Your task to perform on an android device: open chrome and create a bookmark for the current page Image 0: 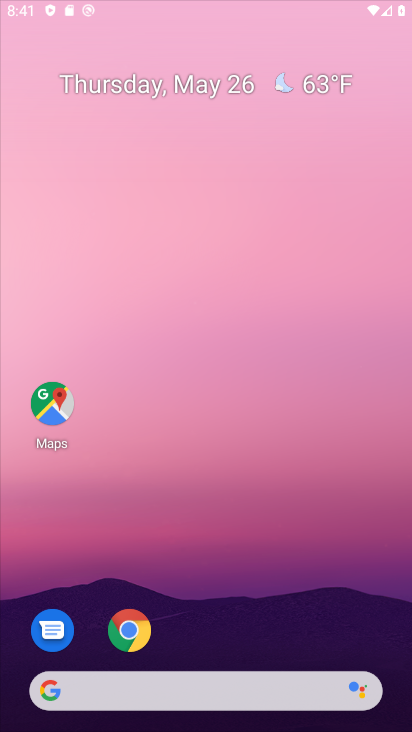
Step 0: click (405, 453)
Your task to perform on an android device: open chrome and create a bookmark for the current page Image 1: 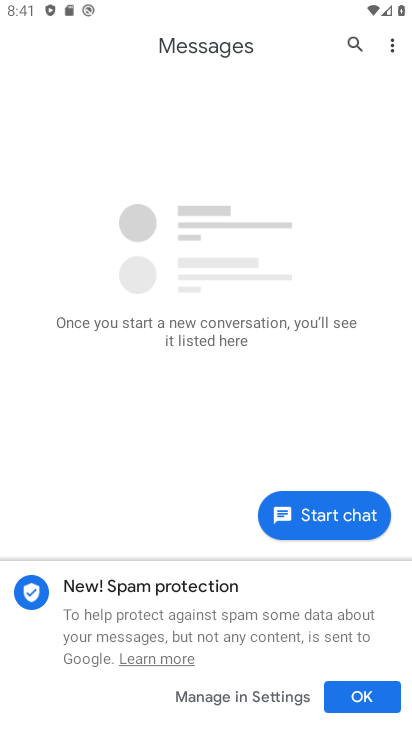
Step 1: click (356, 707)
Your task to perform on an android device: open chrome and create a bookmark for the current page Image 2: 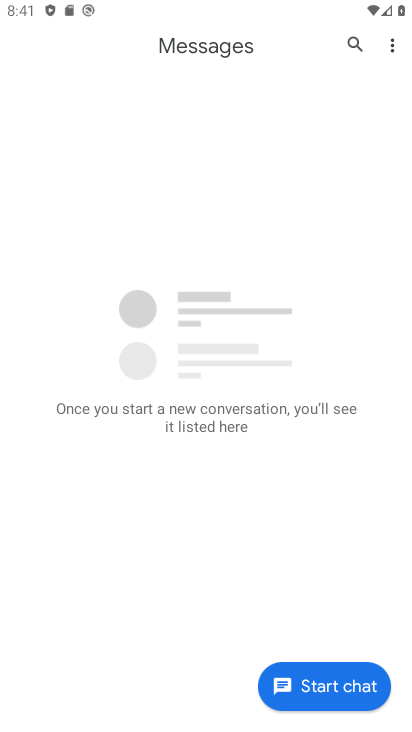
Step 2: press back button
Your task to perform on an android device: open chrome and create a bookmark for the current page Image 3: 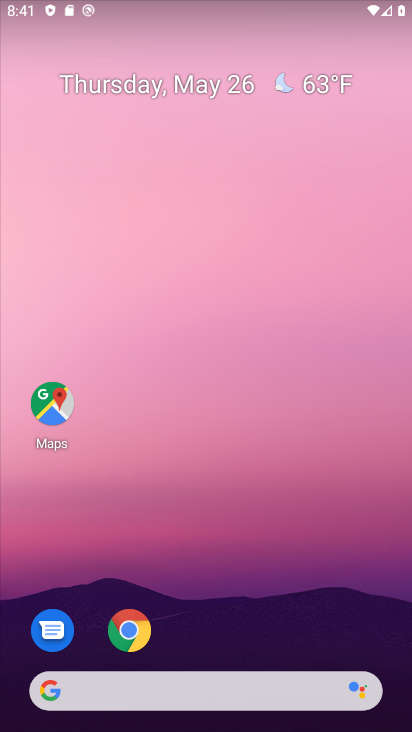
Step 3: drag from (274, 715) to (305, 23)
Your task to perform on an android device: open chrome and create a bookmark for the current page Image 4: 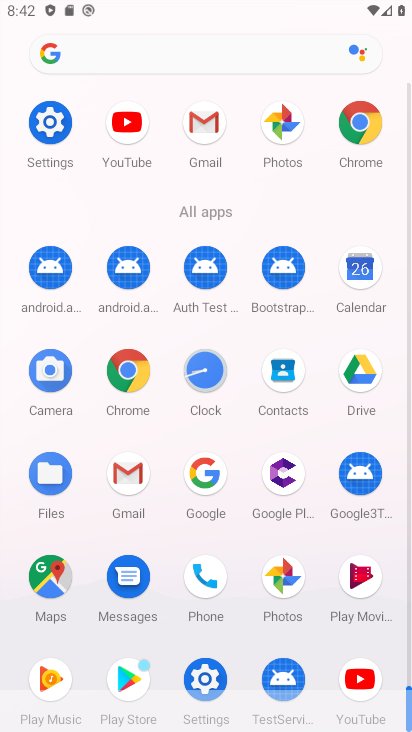
Step 4: click (351, 136)
Your task to perform on an android device: open chrome and create a bookmark for the current page Image 5: 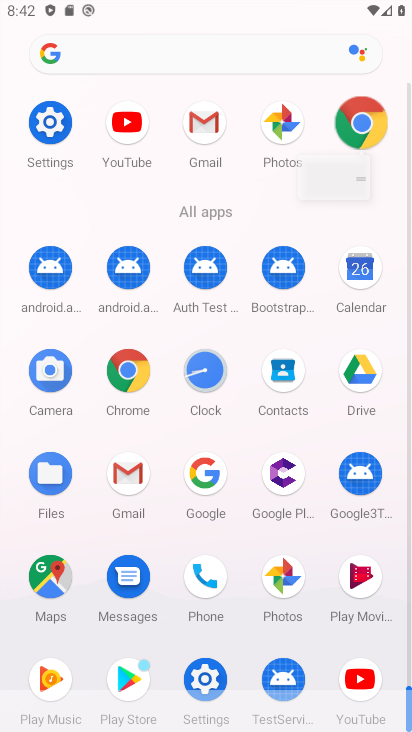
Step 5: click (363, 125)
Your task to perform on an android device: open chrome and create a bookmark for the current page Image 6: 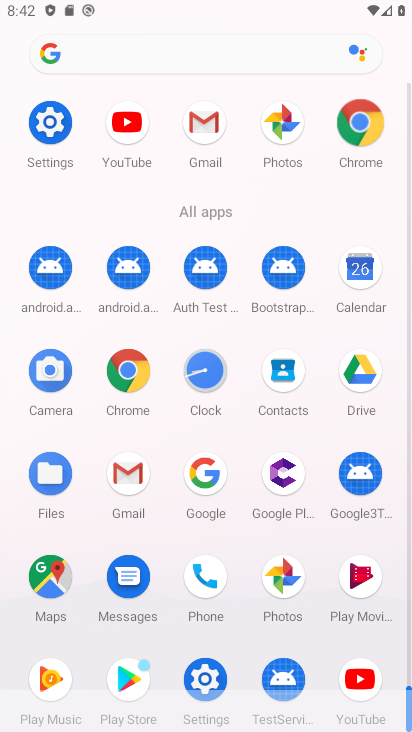
Step 6: click (371, 125)
Your task to perform on an android device: open chrome and create a bookmark for the current page Image 7: 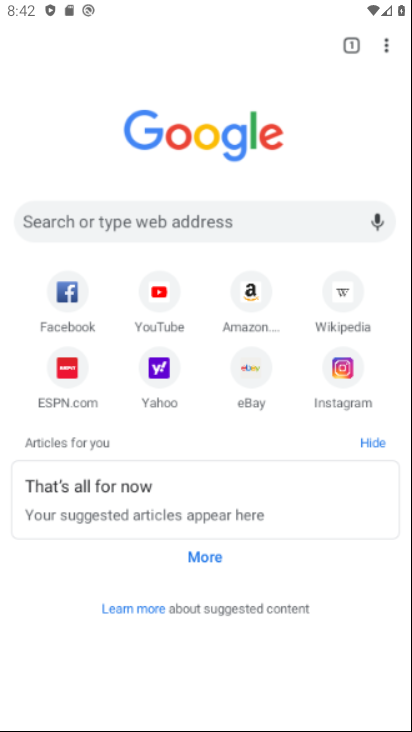
Step 7: click (371, 125)
Your task to perform on an android device: open chrome and create a bookmark for the current page Image 8: 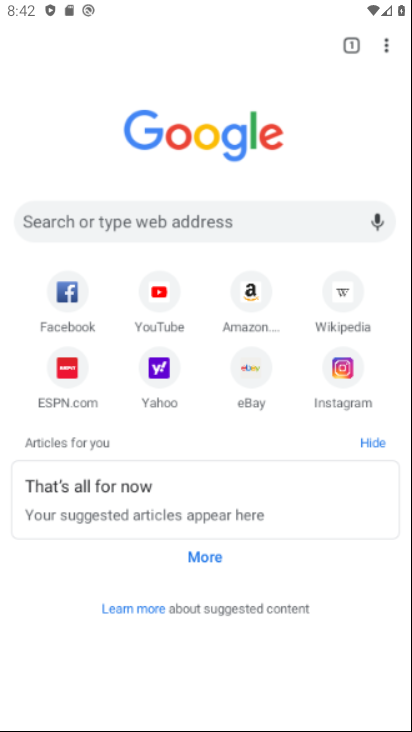
Step 8: click (371, 125)
Your task to perform on an android device: open chrome and create a bookmark for the current page Image 9: 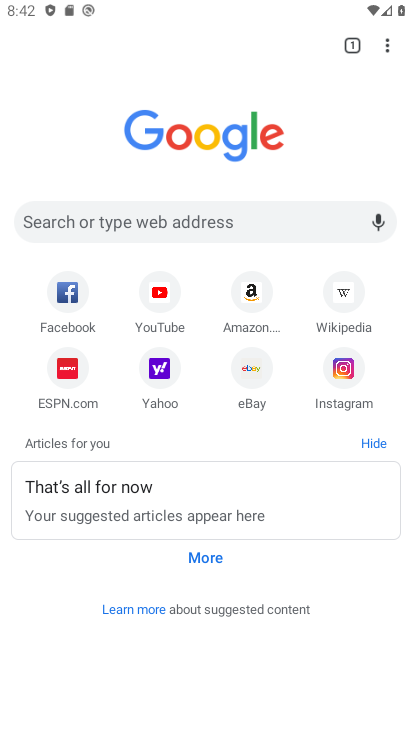
Step 9: click (45, 217)
Your task to perform on an android device: open chrome and create a bookmark for the current page Image 10: 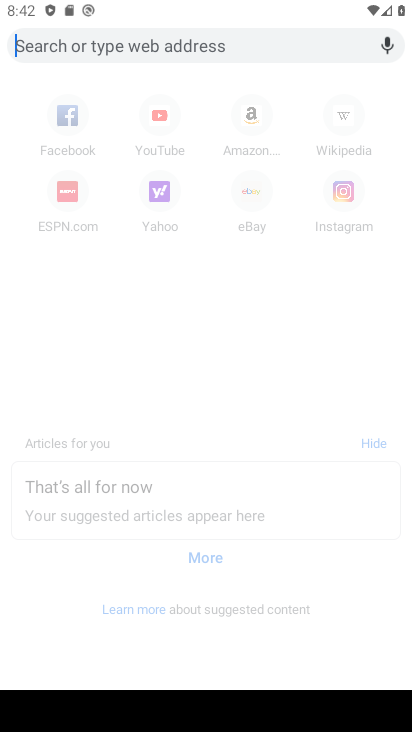
Step 10: type "www.jeevan.com"
Your task to perform on an android device: open chrome and create a bookmark for the current page Image 11: 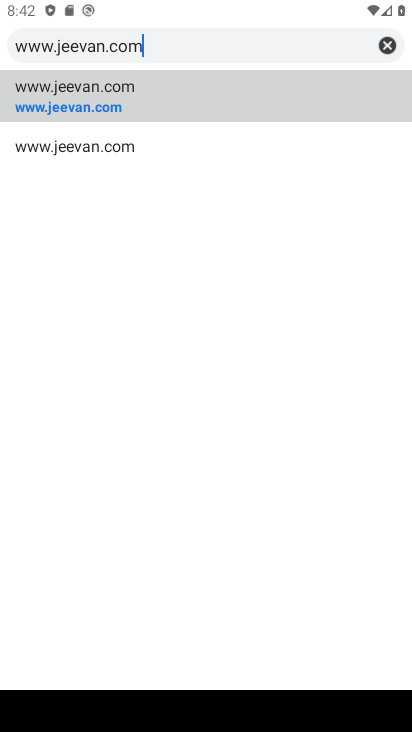
Step 11: click (63, 111)
Your task to perform on an android device: open chrome and create a bookmark for the current page Image 12: 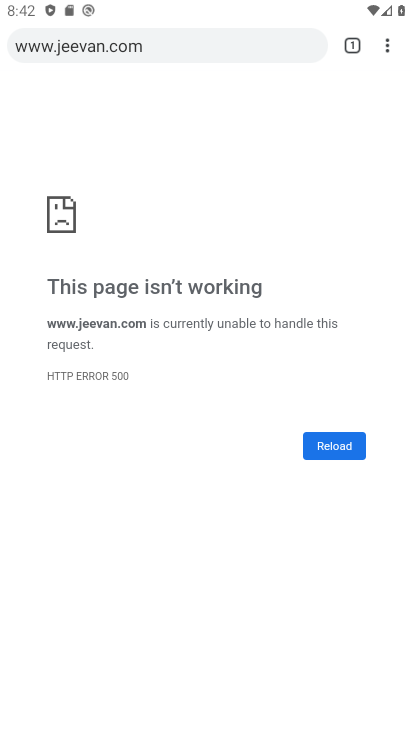
Step 12: task complete